Your task to perform on an android device: Go to CNN.com Image 0: 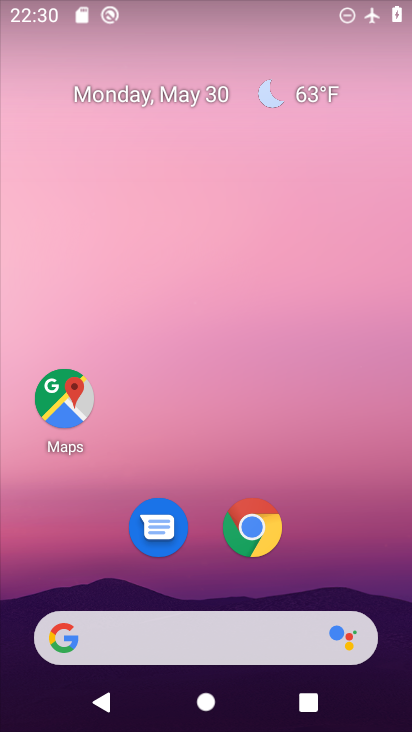
Step 0: click (246, 520)
Your task to perform on an android device: Go to CNN.com Image 1: 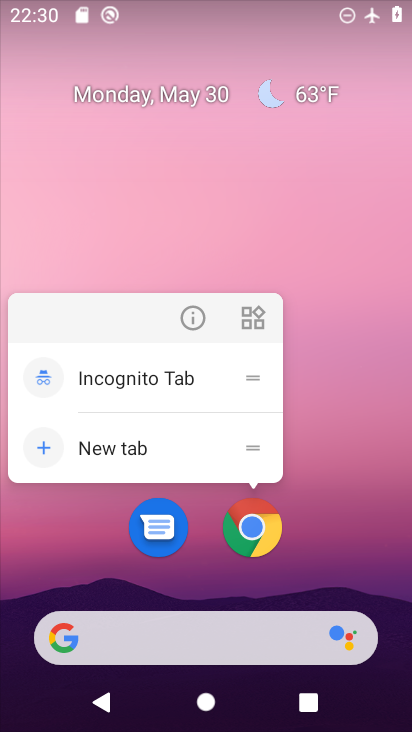
Step 1: click (251, 523)
Your task to perform on an android device: Go to CNN.com Image 2: 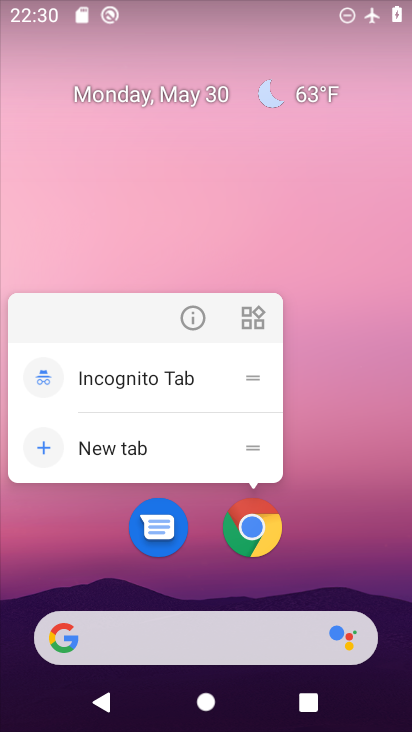
Step 2: click (254, 523)
Your task to perform on an android device: Go to CNN.com Image 3: 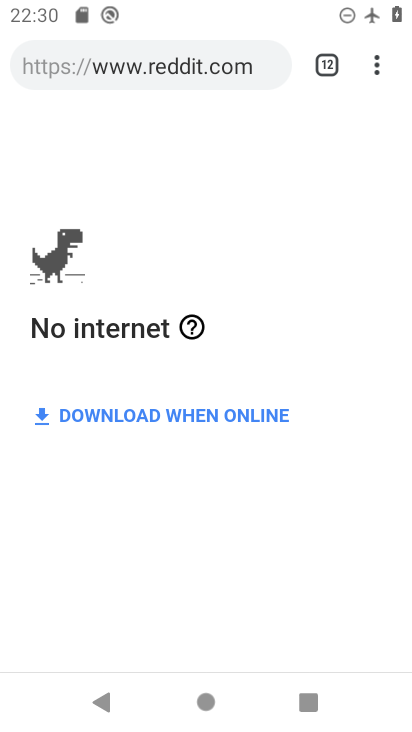
Step 3: click (379, 64)
Your task to perform on an android device: Go to CNN.com Image 4: 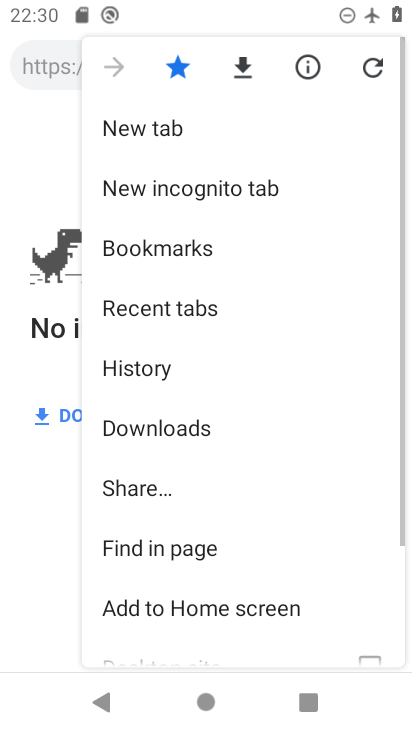
Step 4: click (173, 122)
Your task to perform on an android device: Go to CNN.com Image 5: 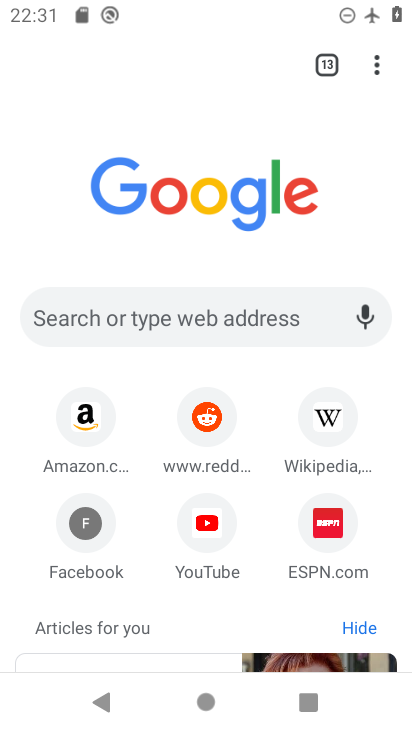
Step 5: click (204, 304)
Your task to perform on an android device: Go to CNN.com Image 6: 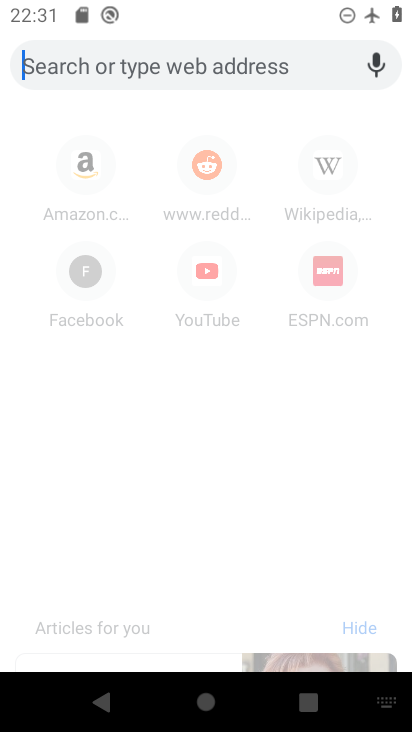
Step 6: type "CNN.com"
Your task to perform on an android device: Go to CNN.com Image 7: 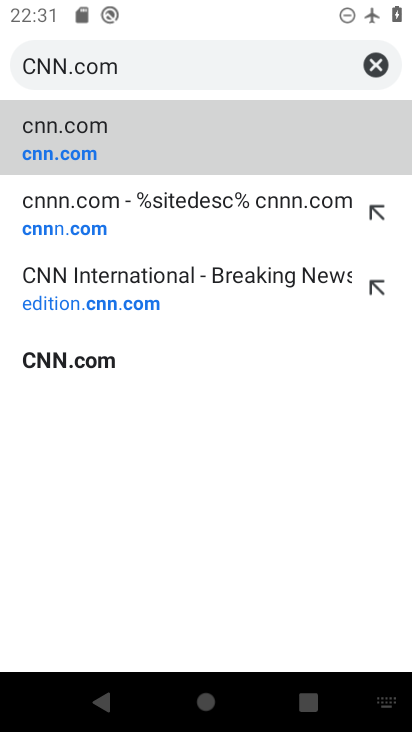
Step 7: click (152, 149)
Your task to perform on an android device: Go to CNN.com Image 8: 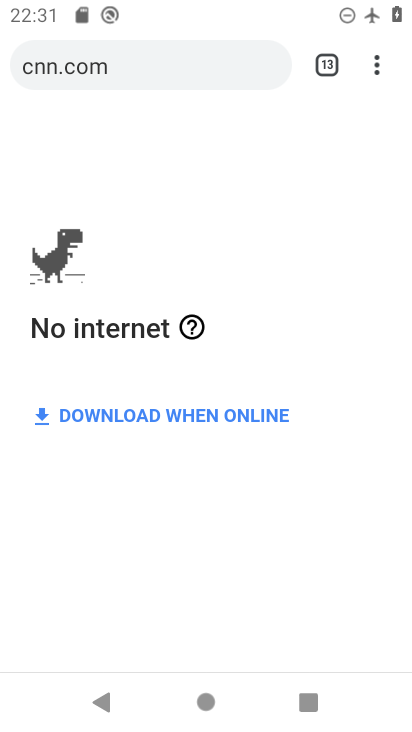
Step 8: task complete